Your task to perform on an android device: turn on sleep mode Image 0: 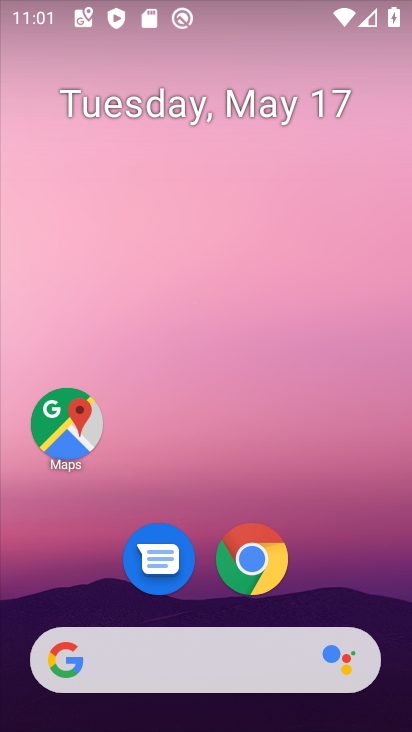
Step 0: drag from (178, 363) to (172, 180)
Your task to perform on an android device: turn on sleep mode Image 1: 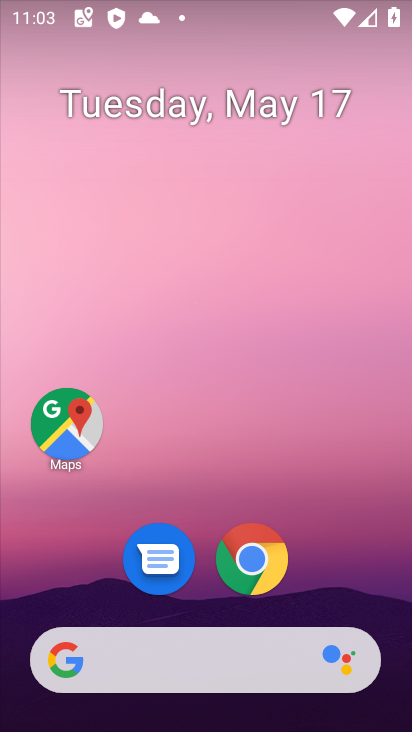
Step 1: drag from (279, 577) to (305, 4)
Your task to perform on an android device: turn on sleep mode Image 2: 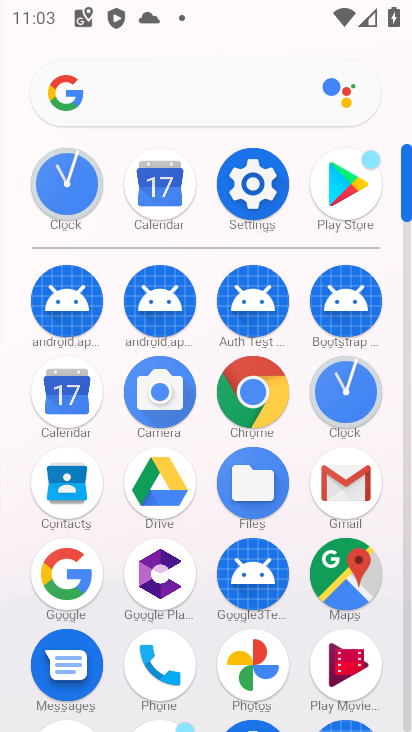
Step 2: click (251, 200)
Your task to perform on an android device: turn on sleep mode Image 3: 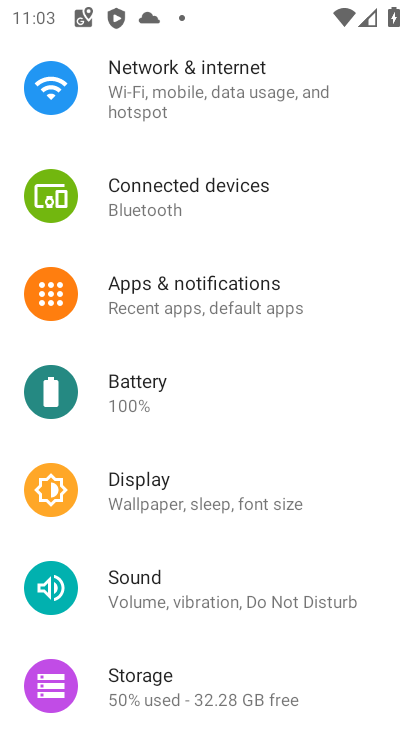
Step 3: click (269, 502)
Your task to perform on an android device: turn on sleep mode Image 4: 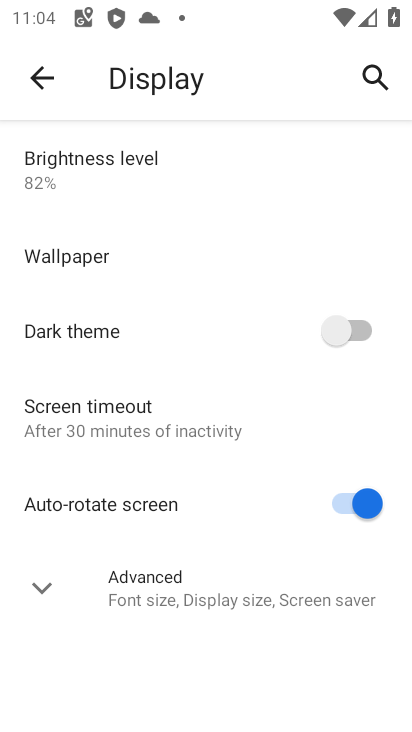
Step 4: task complete